Your task to perform on an android device: Open the calendar app, open the side menu, and click the "Day" option Image 0: 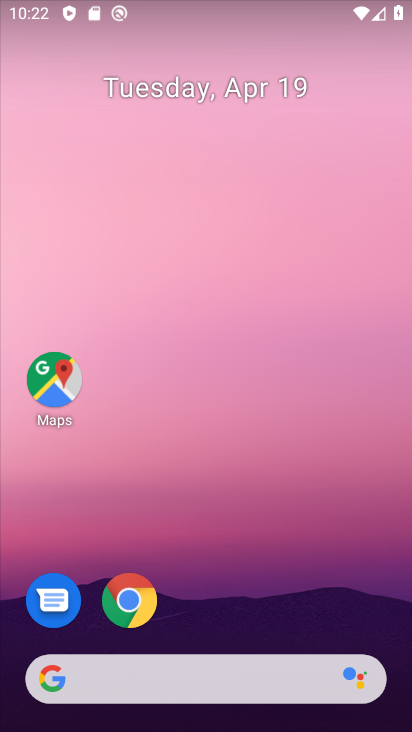
Step 0: drag from (200, 526) to (377, 278)
Your task to perform on an android device: Open the calendar app, open the side menu, and click the "Day" option Image 1: 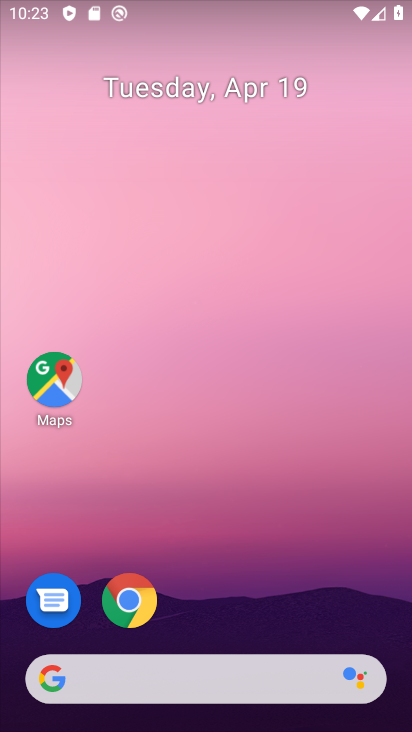
Step 1: drag from (250, 593) to (246, 0)
Your task to perform on an android device: Open the calendar app, open the side menu, and click the "Day" option Image 2: 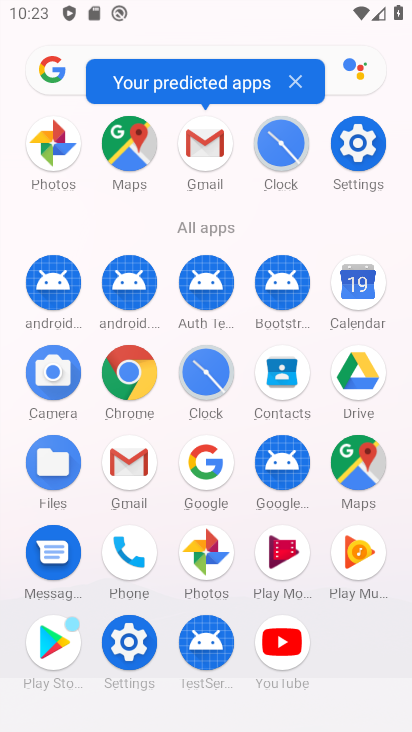
Step 2: click (348, 290)
Your task to perform on an android device: Open the calendar app, open the side menu, and click the "Day" option Image 3: 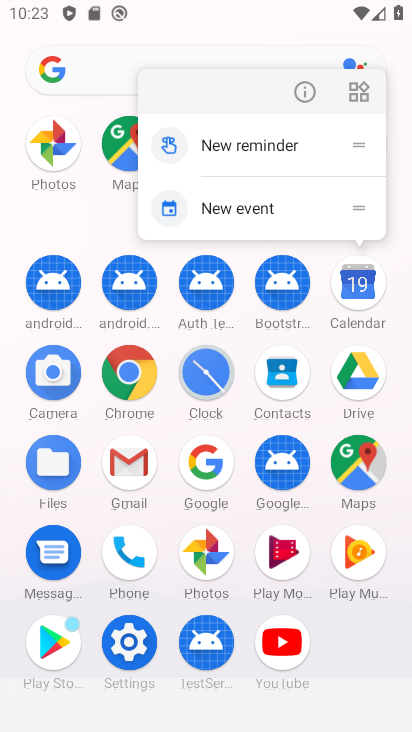
Step 3: click (351, 305)
Your task to perform on an android device: Open the calendar app, open the side menu, and click the "Day" option Image 4: 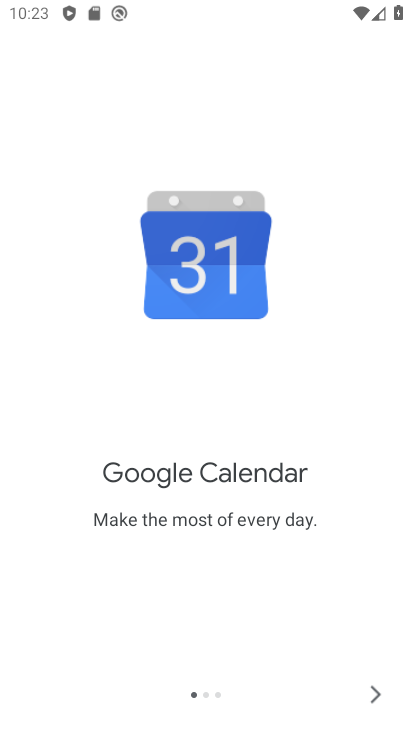
Step 4: click (367, 702)
Your task to perform on an android device: Open the calendar app, open the side menu, and click the "Day" option Image 5: 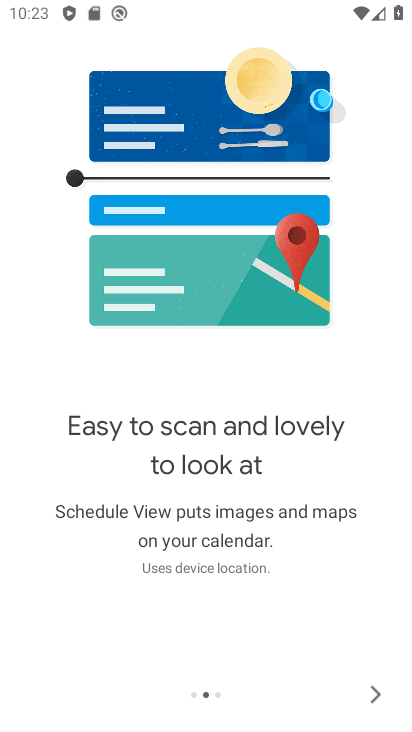
Step 5: click (367, 702)
Your task to perform on an android device: Open the calendar app, open the side menu, and click the "Day" option Image 6: 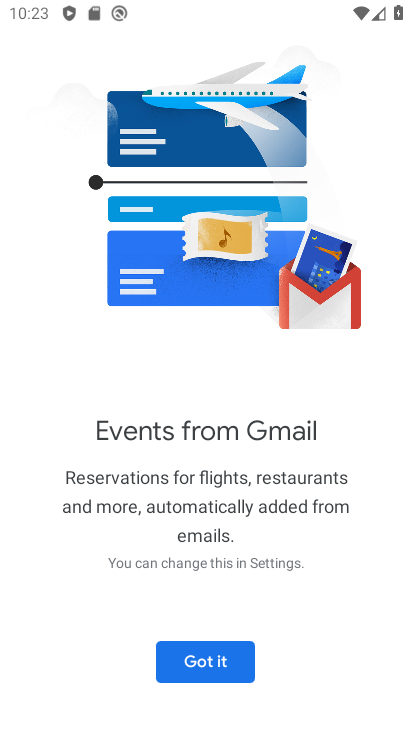
Step 6: click (205, 648)
Your task to perform on an android device: Open the calendar app, open the side menu, and click the "Day" option Image 7: 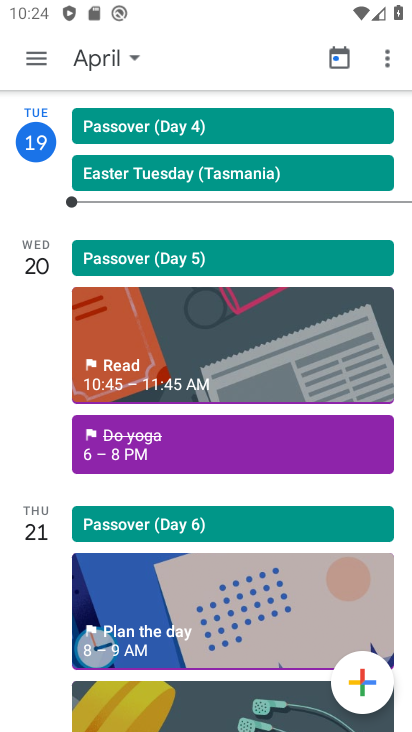
Step 7: click (38, 55)
Your task to perform on an android device: Open the calendar app, open the side menu, and click the "Day" option Image 8: 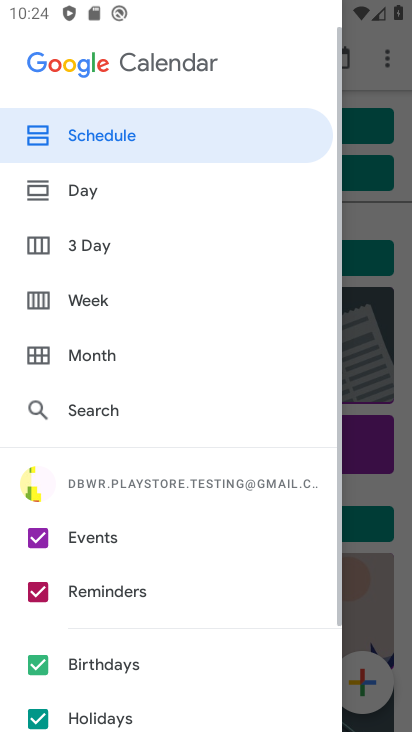
Step 8: click (71, 185)
Your task to perform on an android device: Open the calendar app, open the side menu, and click the "Day" option Image 9: 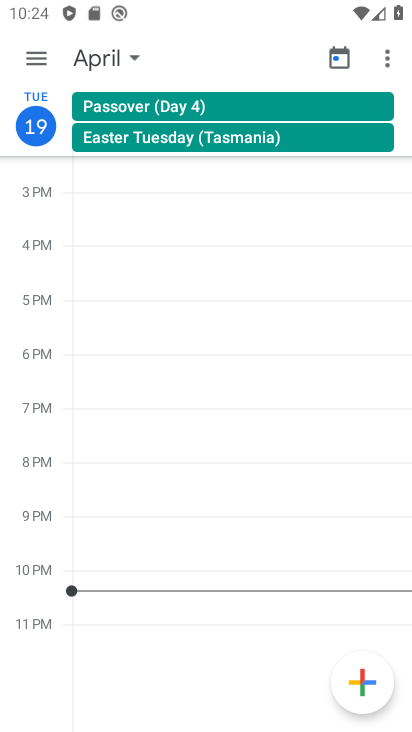
Step 9: task complete